Your task to perform on an android device: What is the news today? Image 0: 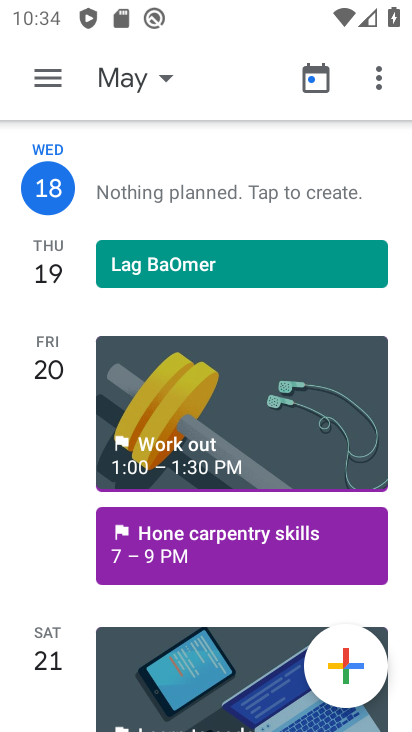
Step 0: press back button
Your task to perform on an android device: What is the news today? Image 1: 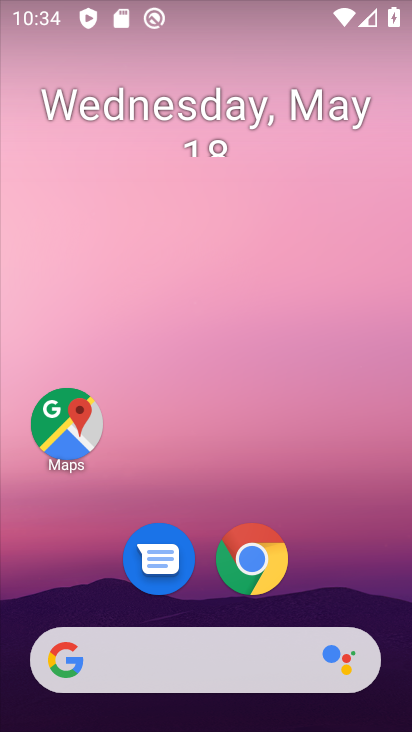
Step 1: click (185, 650)
Your task to perform on an android device: What is the news today? Image 2: 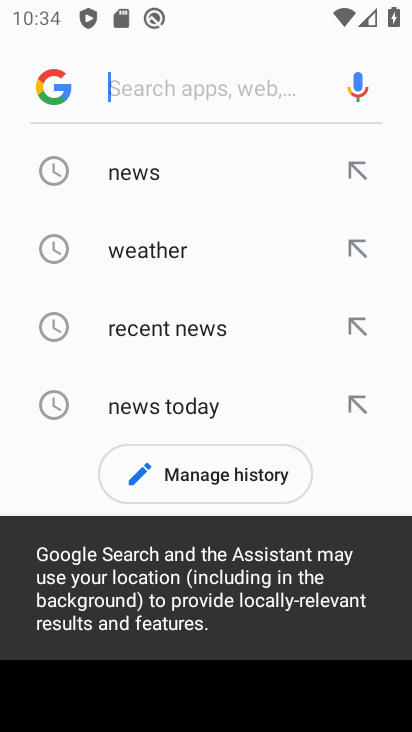
Step 2: click (152, 169)
Your task to perform on an android device: What is the news today? Image 3: 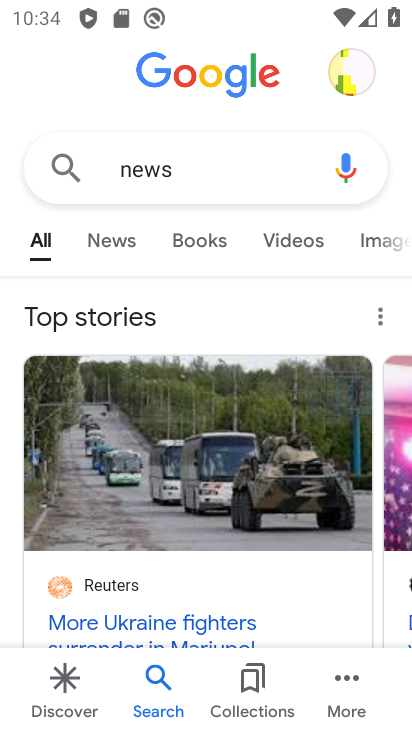
Step 3: task complete